Your task to perform on an android device: Open Chrome and go to settings Image 0: 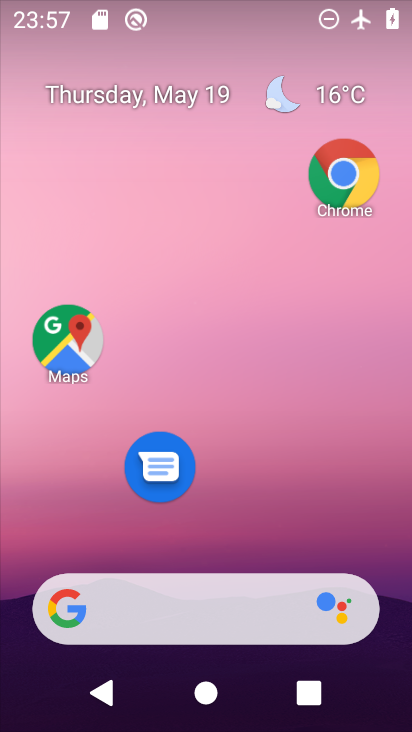
Step 0: click (317, 154)
Your task to perform on an android device: Open Chrome and go to settings Image 1: 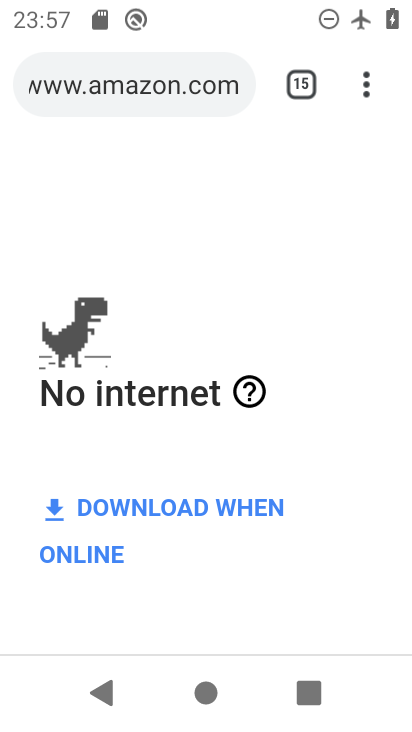
Step 1: click (373, 71)
Your task to perform on an android device: Open Chrome and go to settings Image 2: 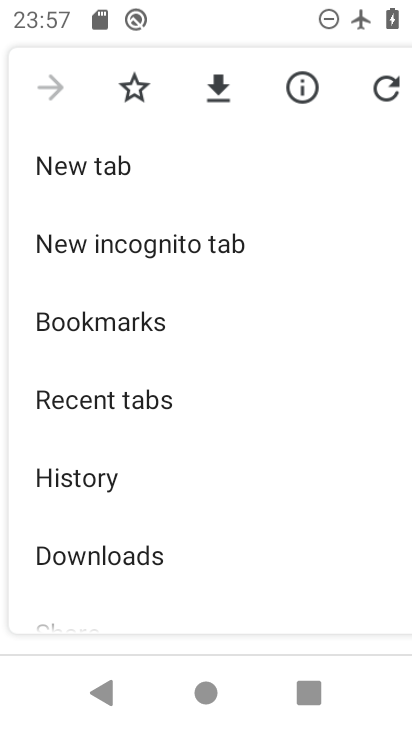
Step 2: drag from (197, 571) to (204, 185)
Your task to perform on an android device: Open Chrome and go to settings Image 3: 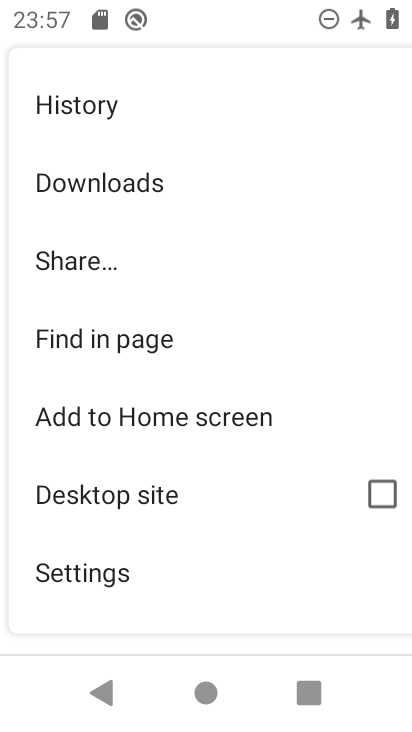
Step 3: click (119, 573)
Your task to perform on an android device: Open Chrome and go to settings Image 4: 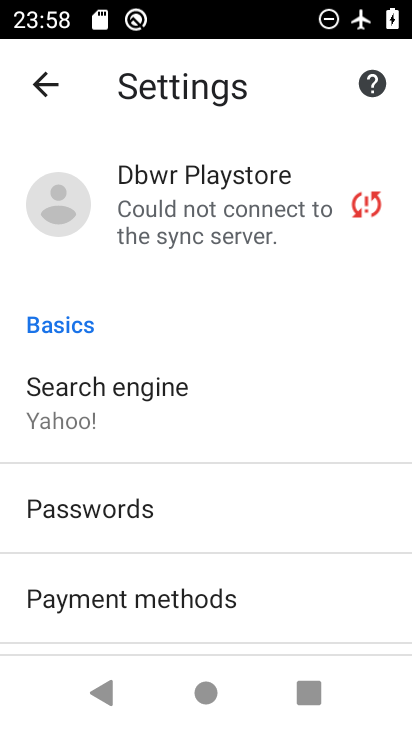
Step 4: task complete